Your task to perform on an android device: turn on sleep mode Image 0: 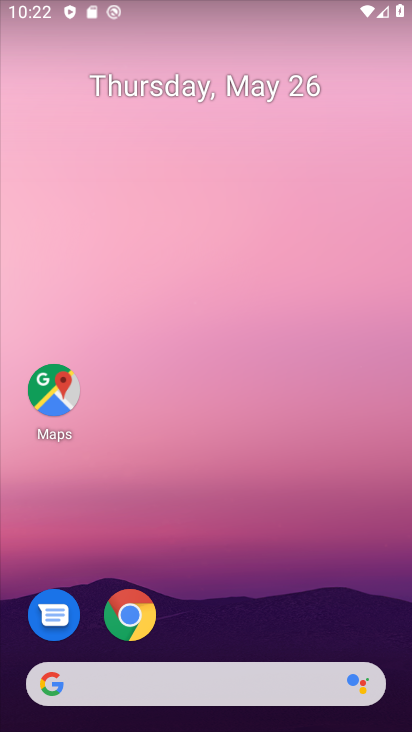
Step 0: drag from (243, 4) to (213, 565)
Your task to perform on an android device: turn on sleep mode Image 1: 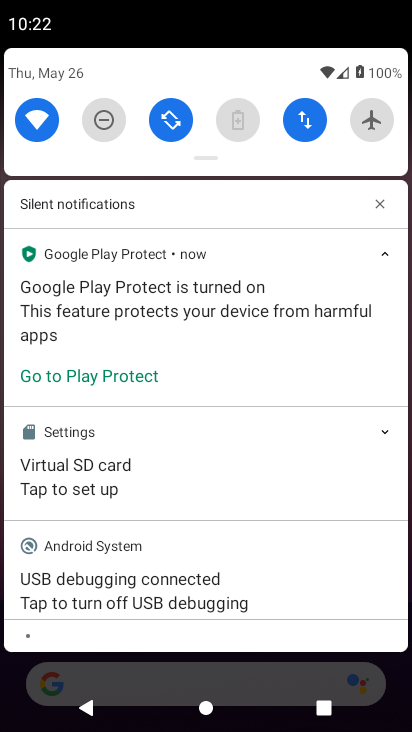
Step 1: drag from (207, 155) to (157, 550)
Your task to perform on an android device: turn on sleep mode Image 2: 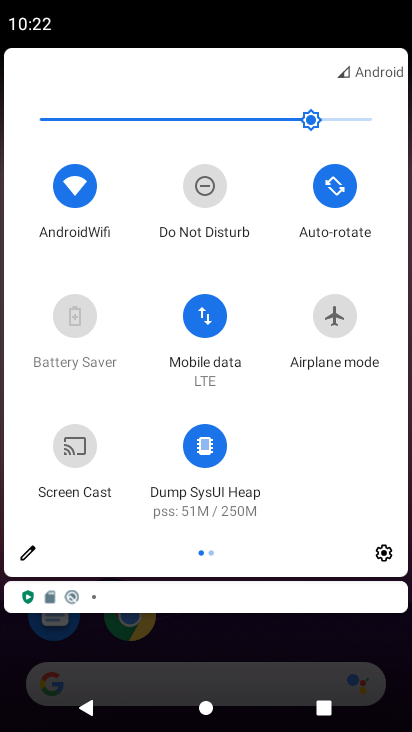
Step 2: click (28, 550)
Your task to perform on an android device: turn on sleep mode Image 3: 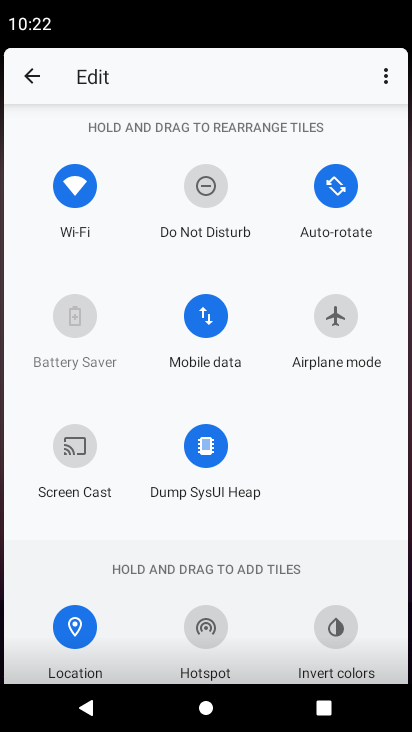
Step 3: task complete